Your task to perform on an android device: change text size in settings app Image 0: 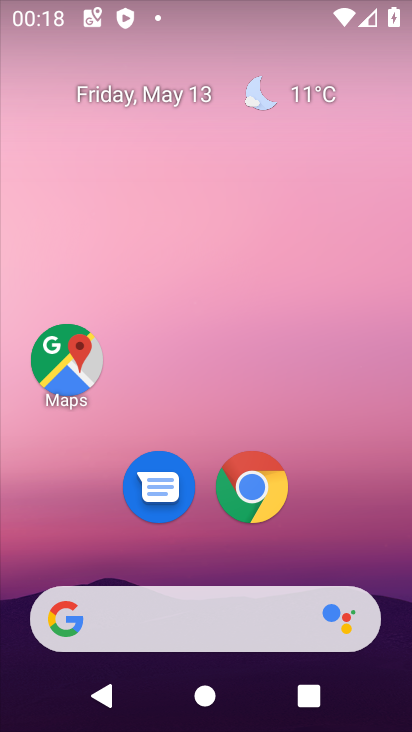
Step 0: drag from (212, 543) to (250, 117)
Your task to perform on an android device: change text size in settings app Image 1: 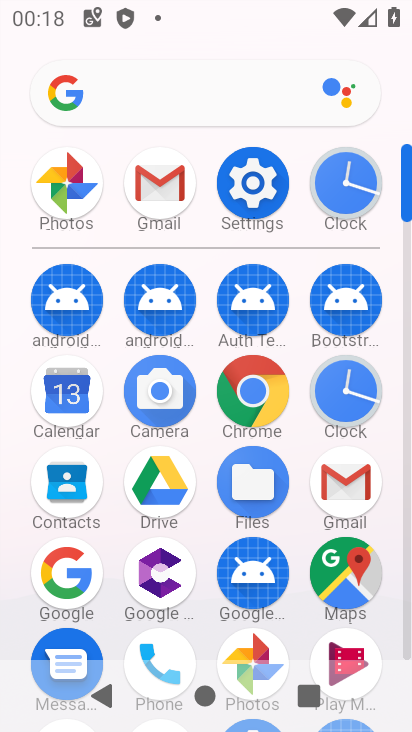
Step 1: click (245, 200)
Your task to perform on an android device: change text size in settings app Image 2: 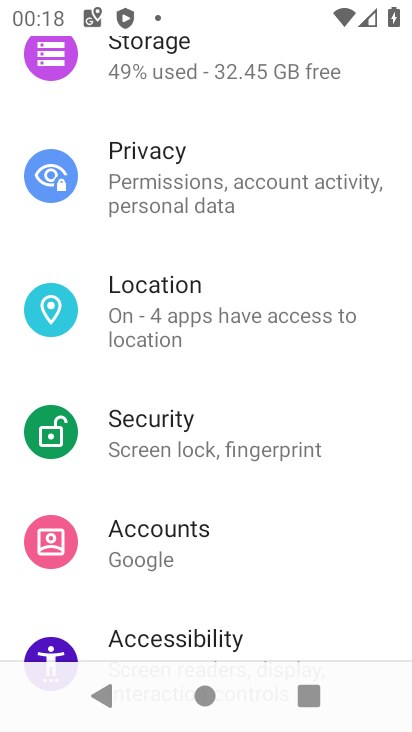
Step 2: drag from (245, 200) to (249, 650)
Your task to perform on an android device: change text size in settings app Image 3: 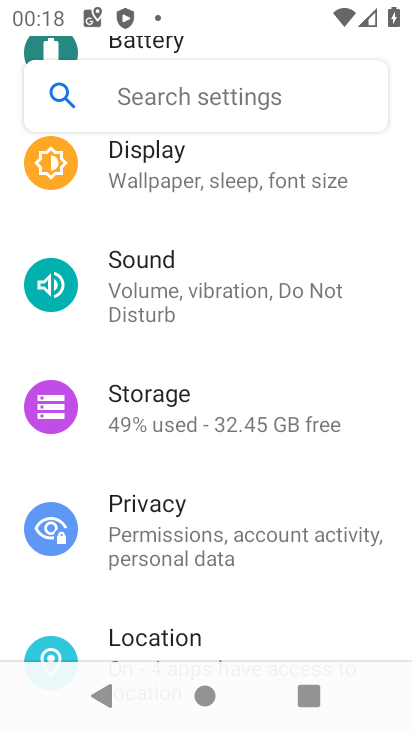
Step 3: click (254, 194)
Your task to perform on an android device: change text size in settings app Image 4: 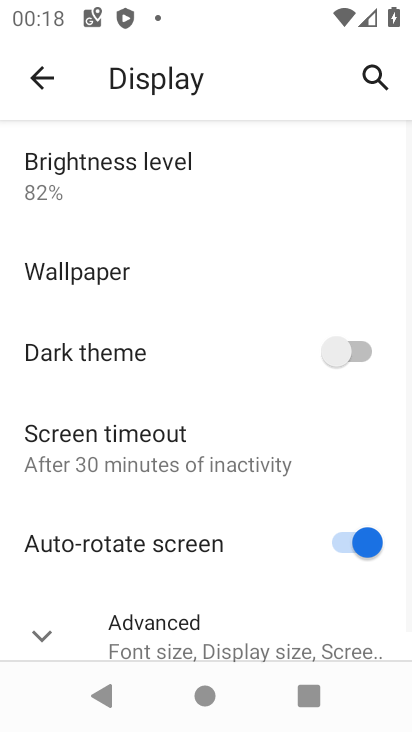
Step 4: click (215, 639)
Your task to perform on an android device: change text size in settings app Image 5: 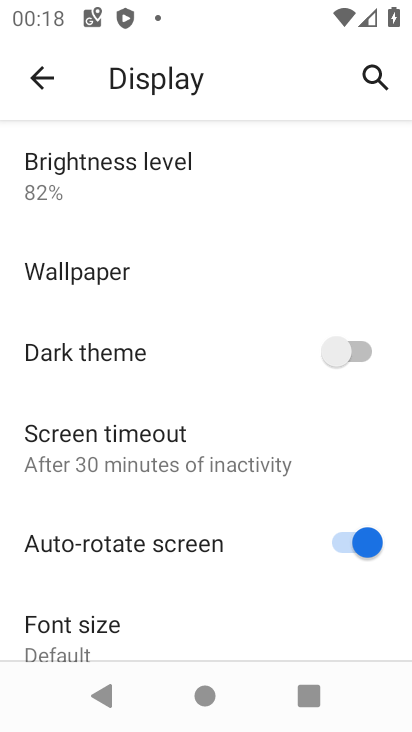
Step 5: click (215, 639)
Your task to perform on an android device: change text size in settings app Image 6: 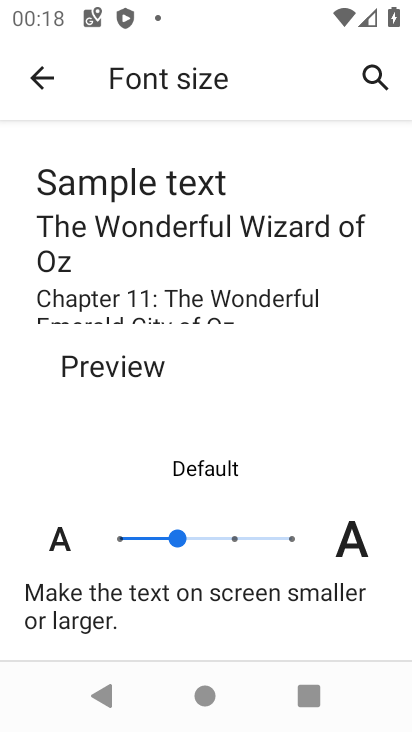
Step 6: click (122, 540)
Your task to perform on an android device: change text size in settings app Image 7: 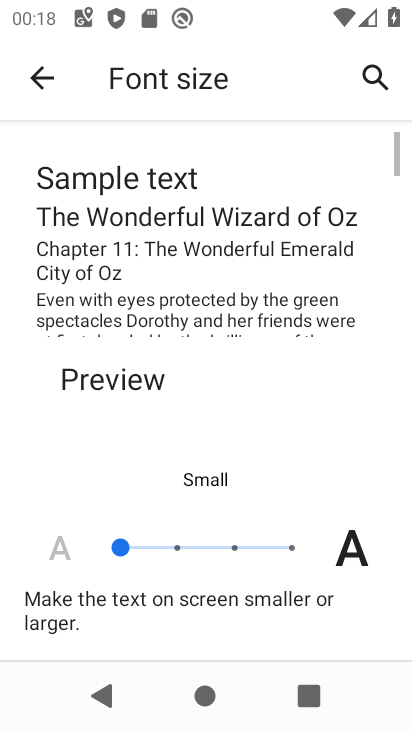
Step 7: task complete